Your task to perform on an android device: Set the phone to "Do not disturb". Image 0: 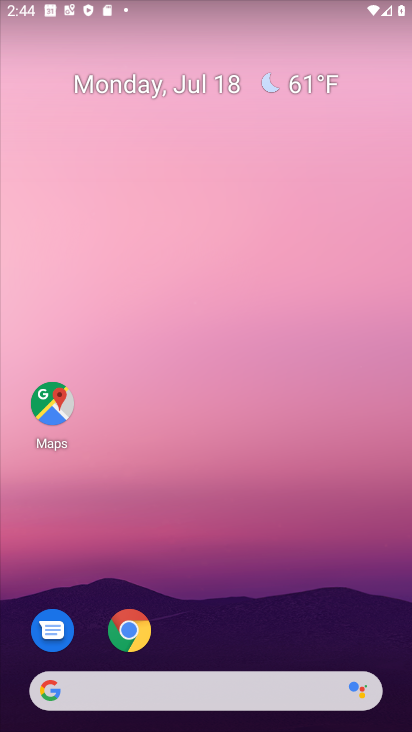
Step 0: drag from (237, 611) to (278, 35)
Your task to perform on an android device: Set the phone to "Do not disturb". Image 1: 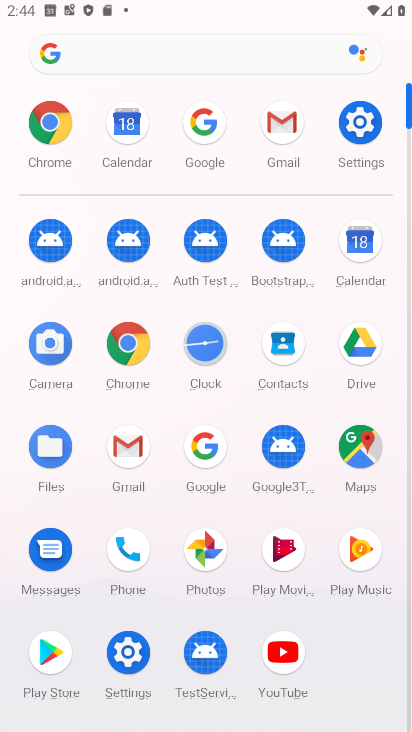
Step 1: click (357, 116)
Your task to perform on an android device: Set the phone to "Do not disturb". Image 2: 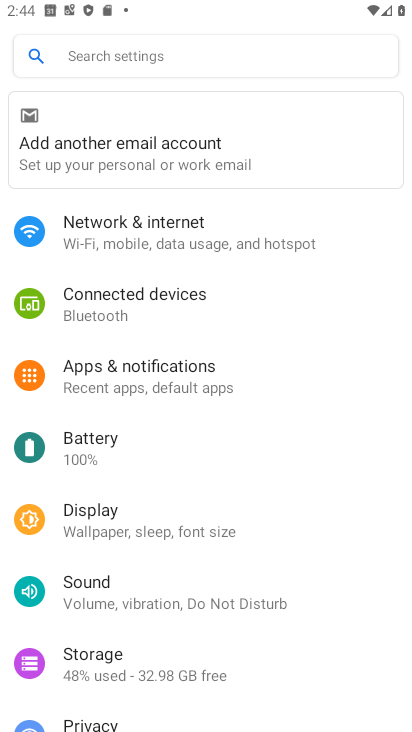
Step 2: click (175, 595)
Your task to perform on an android device: Set the phone to "Do not disturb". Image 3: 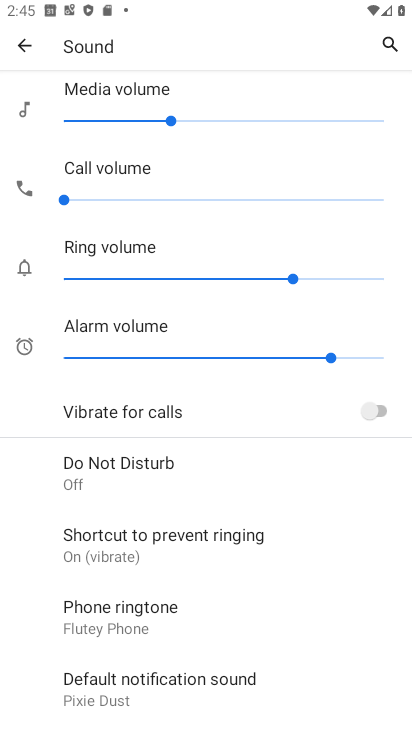
Step 3: click (173, 471)
Your task to perform on an android device: Set the phone to "Do not disturb". Image 4: 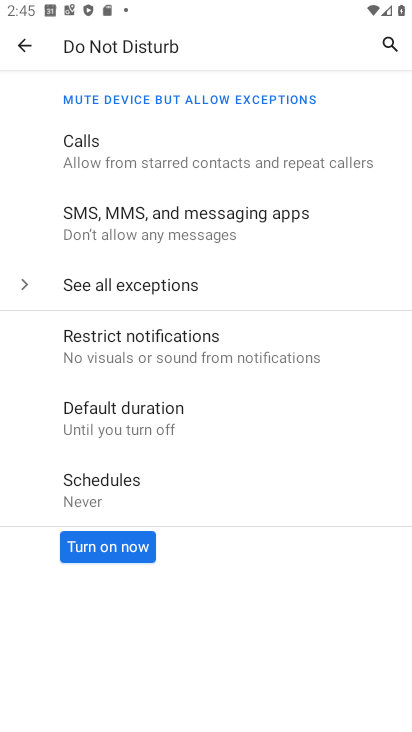
Step 4: click (144, 551)
Your task to perform on an android device: Set the phone to "Do not disturb". Image 5: 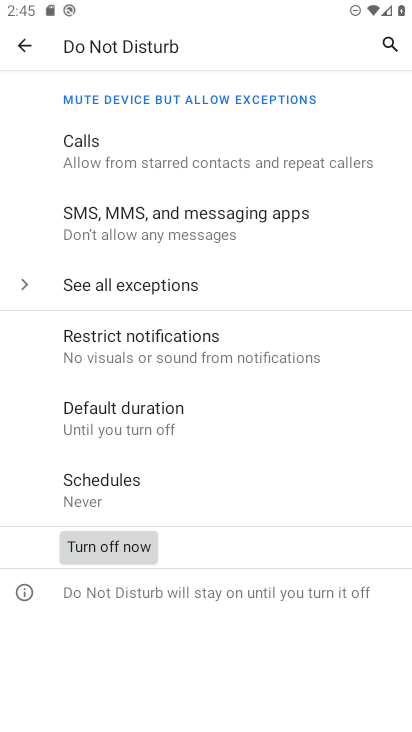
Step 5: task complete